Your task to perform on an android device: Open privacy settings Image 0: 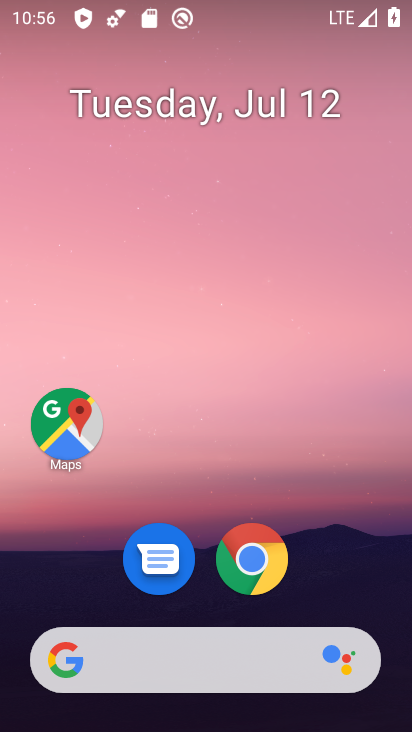
Step 0: drag from (133, 540) to (120, 122)
Your task to perform on an android device: Open privacy settings Image 1: 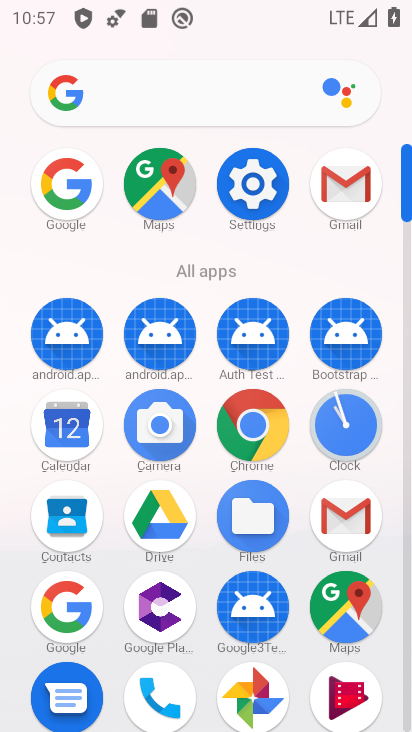
Step 1: click (253, 175)
Your task to perform on an android device: Open privacy settings Image 2: 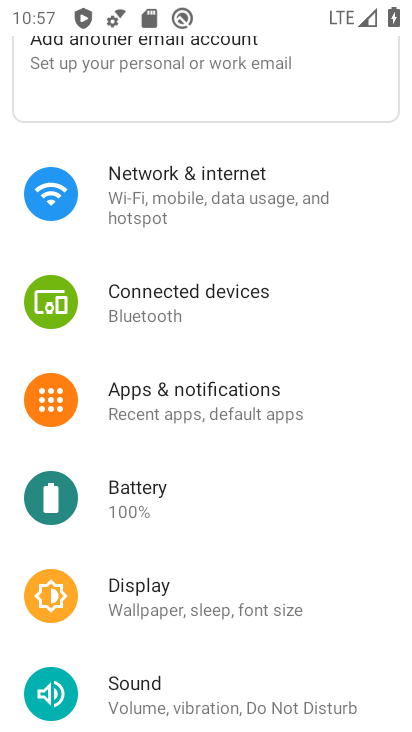
Step 2: drag from (189, 576) to (182, 270)
Your task to perform on an android device: Open privacy settings Image 3: 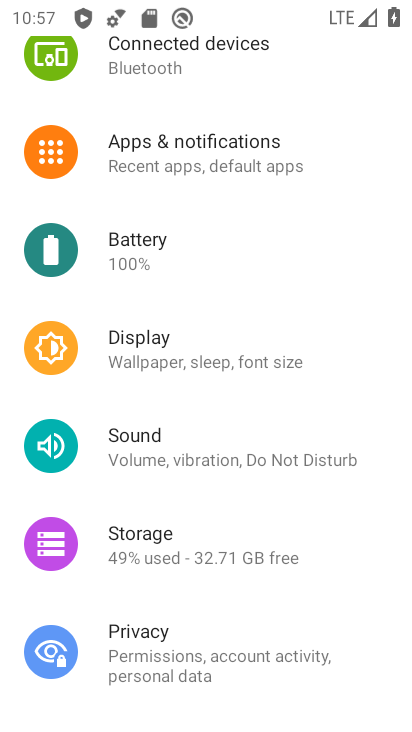
Step 3: drag from (212, 583) to (210, 433)
Your task to perform on an android device: Open privacy settings Image 4: 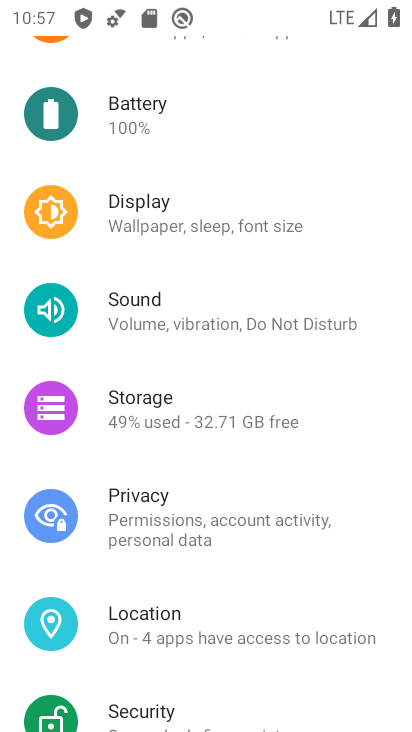
Step 4: click (154, 521)
Your task to perform on an android device: Open privacy settings Image 5: 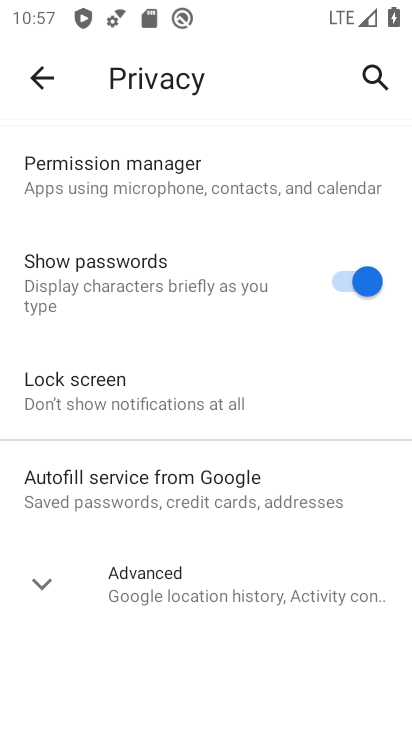
Step 5: task complete